Your task to perform on an android device: Open Chrome and go to settings Image 0: 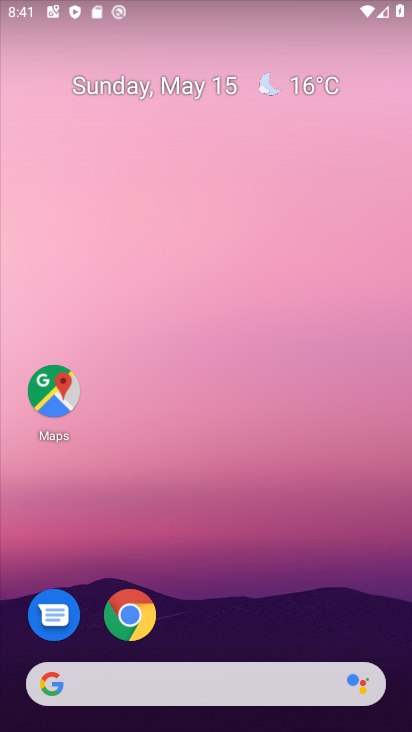
Step 0: click (137, 618)
Your task to perform on an android device: Open Chrome and go to settings Image 1: 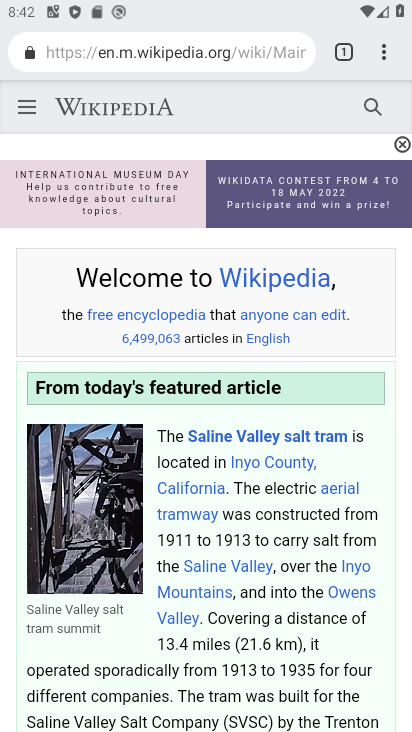
Step 1: click (379, 57)
Your task to perform on an android device: Open Chrome and go to settings Image 2: 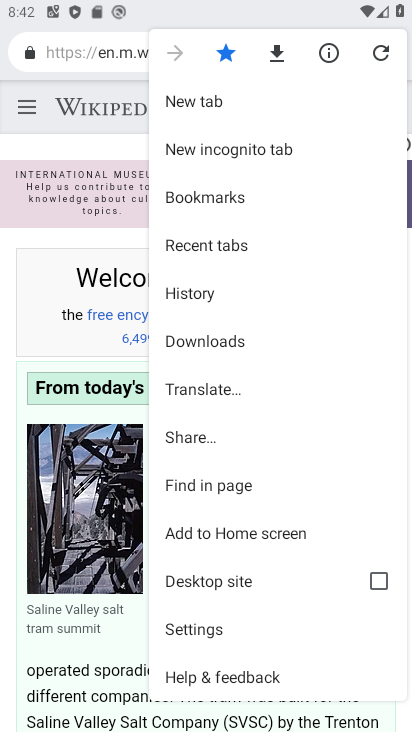
Step 2: click (197, 634)
Your task to perform on an android device: Open Chrome and go to settings Image 3: 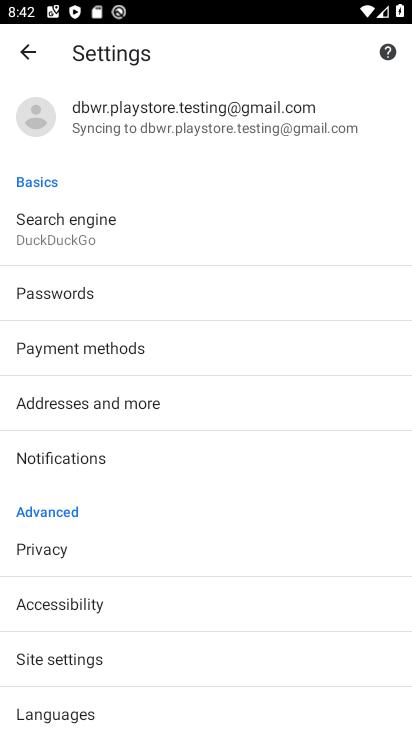
Step 3: task complete